Your task to perform on an android device: clear all cookies in the chrome app Image 0: 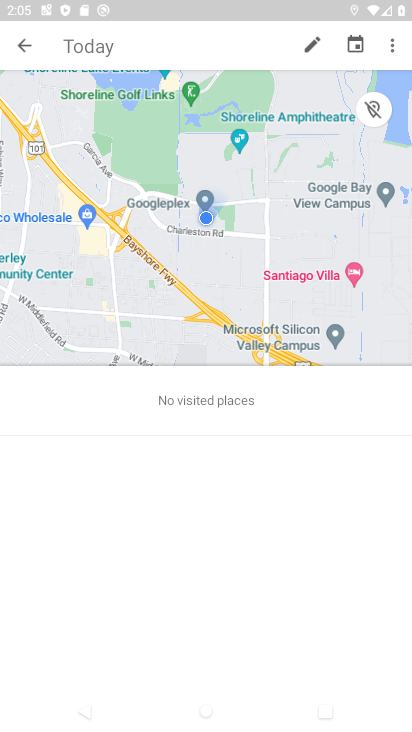
Step 0: press home button
Your task to perform on an android device: clear all cookies in the chrome app Image 1: 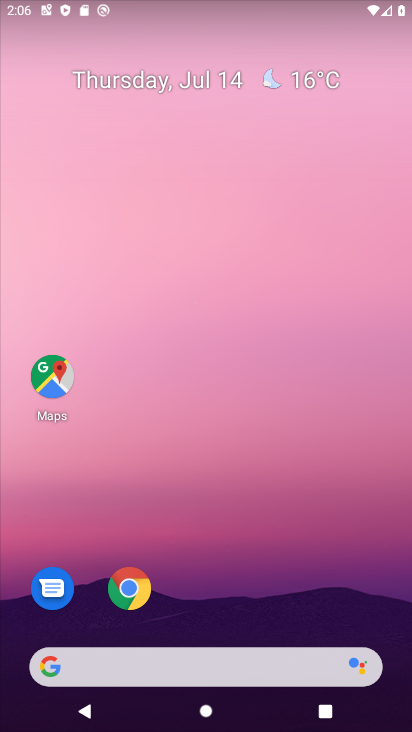
Step 1: click (126, 585)
Your task to perform on an android device: clear all cookies in the chrome app Image 2: 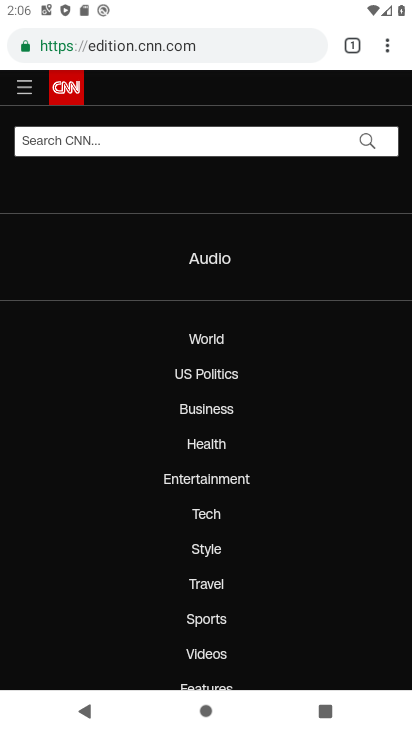
Step 2: click (394, 35)
Your task to perform on an android device: clear all cookies in the chrome app Image 3: 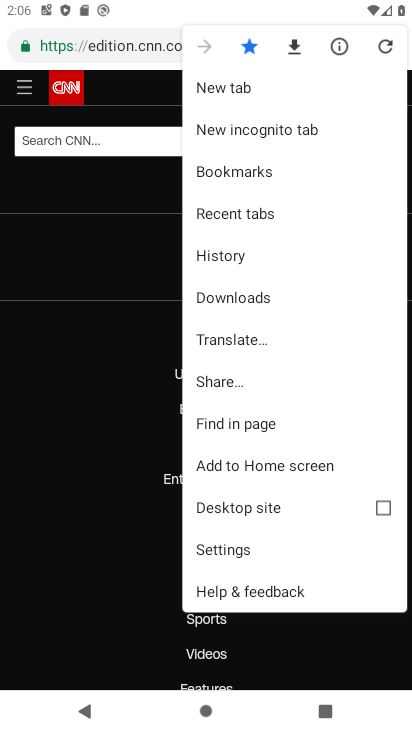
Step 3: click (256, 249)
Your task to perform on an android device: clear all cookies in the chrome app Image 4: 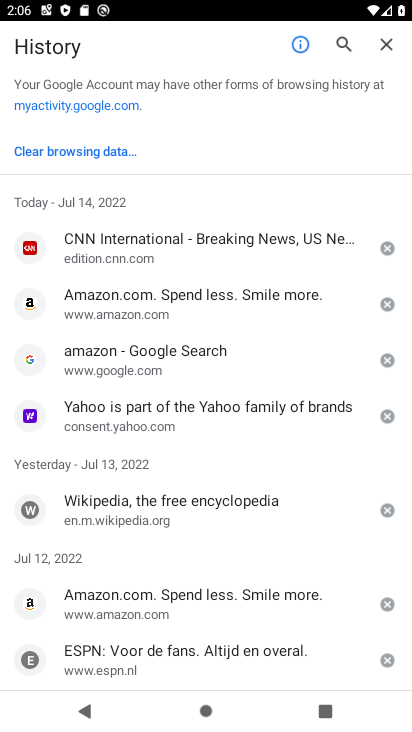
Step 4: click (111, 147)
Your task to perform on an android device: clear all cookies in the chrome app Image 5: 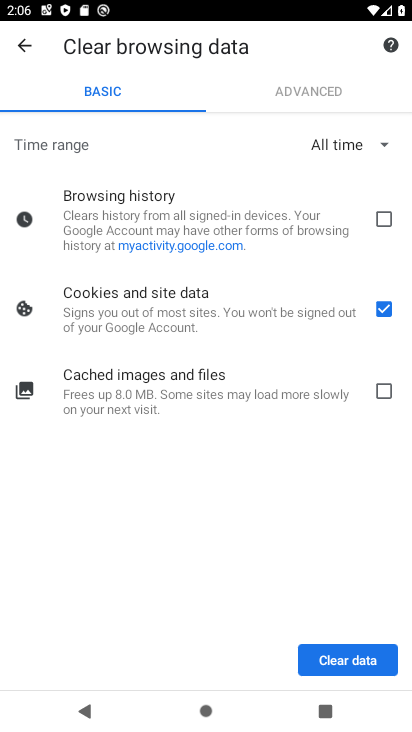
Step 5: click (330, 653)
Your task to perform on an android device: clear all cookies in the chrome app Image 6: 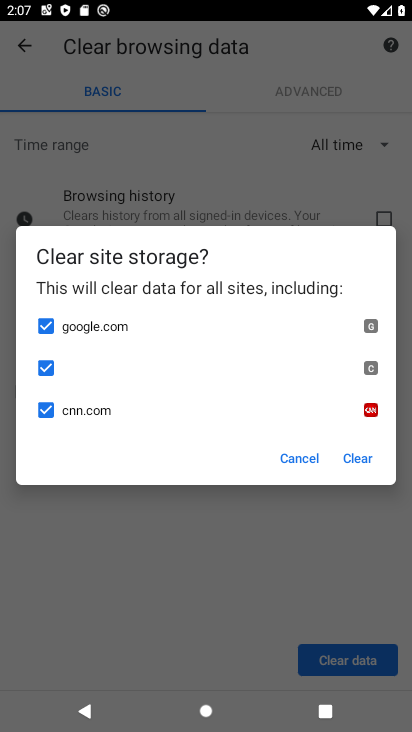
Step 6: click (352, 461)
Your task to perform on an android device: clear all cookies in the chrome app Image 7: 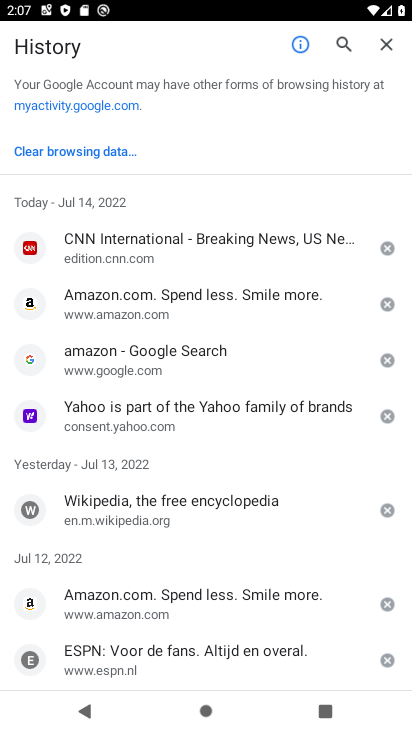
Step 7: task complete